Your task to perform on an android device: Do I have any events today? Image 0: 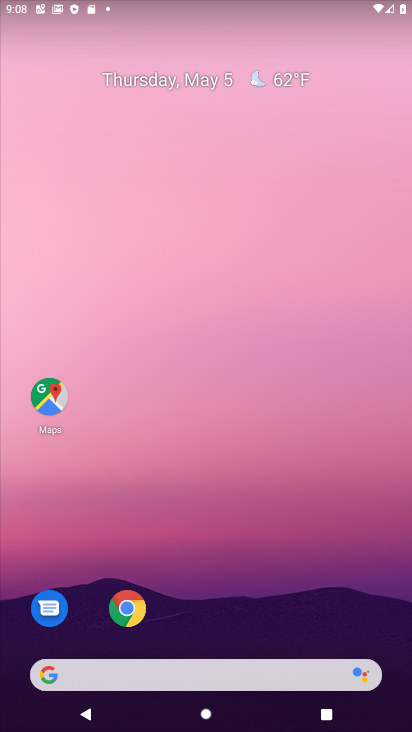
Step 0: drag from (304, 609) to (255, 21)
Your task to perform on an android device: Do I have any events today? Image 1: 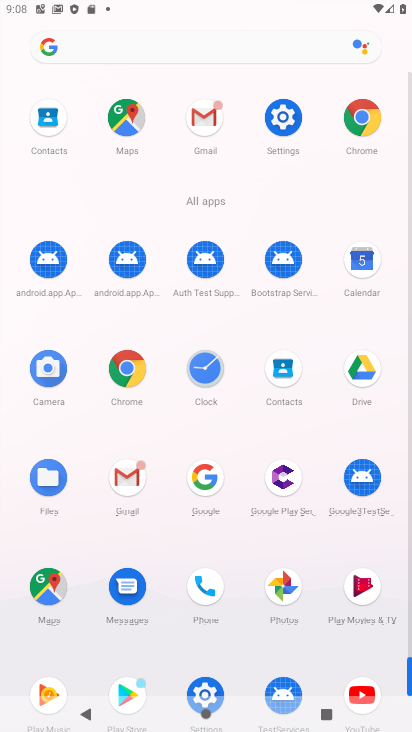
Step 1: drag from (9, 578) to (2, 204)
Your task to perform on an android device: Do I have any events today? Image 2: 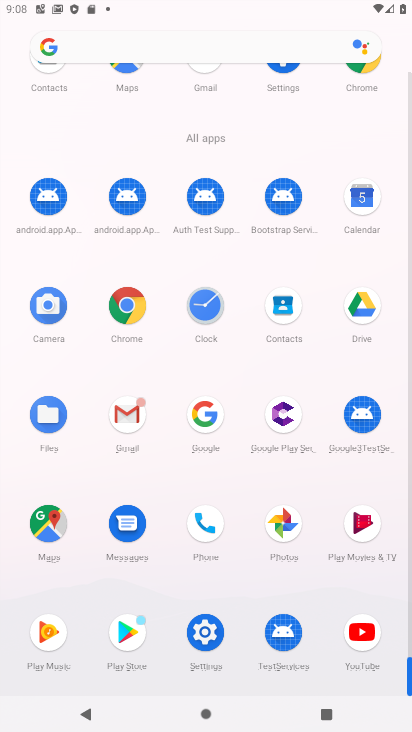
Step 2: drag from (5, 125) to (18, 376)
Your task to perform on an android device: Do I have any events today? Image 3: 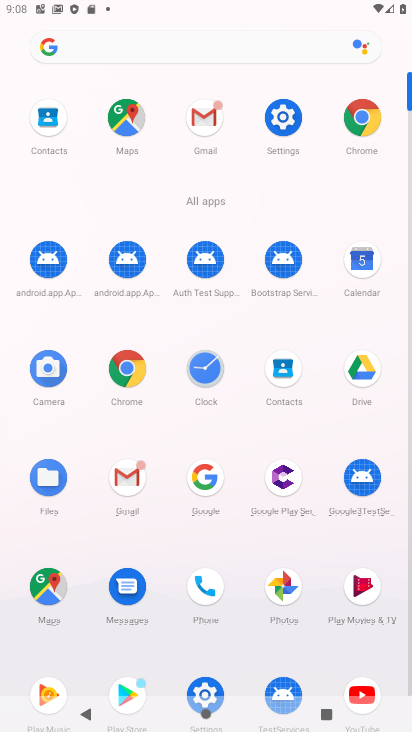
Step 3: click (364, 254)
Your task to perform on an android device: Do I have any events today? Image 4: 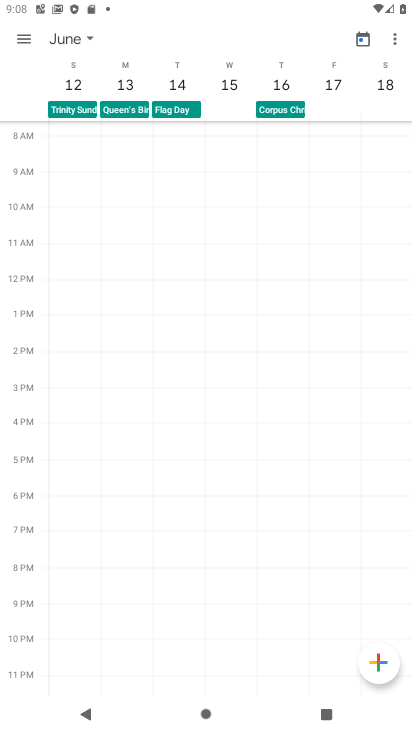
Step 4: click (26, 45)
Your task to perform on an android device: Do I have any events today? Image 5: 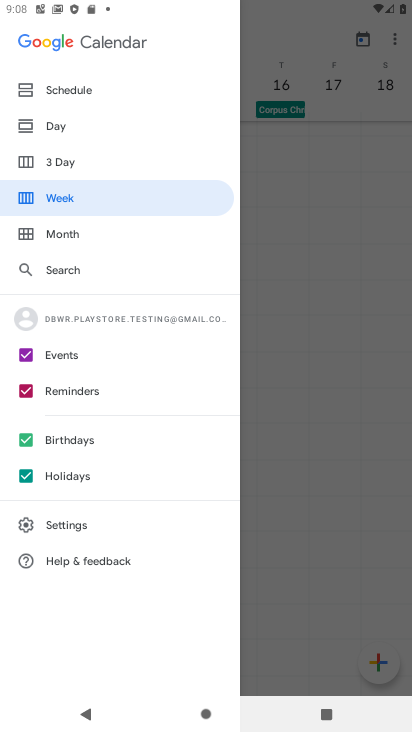
Step 5: click (301, 299)
Your task to perform on an android device: Do I have any events today? Image 6: 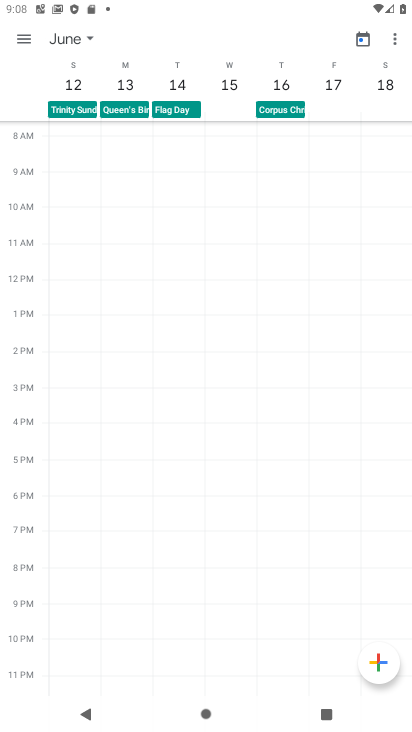
Step 6: click (365, 38)
Your task to perform on an android device: Do I have any events today? Image 7: 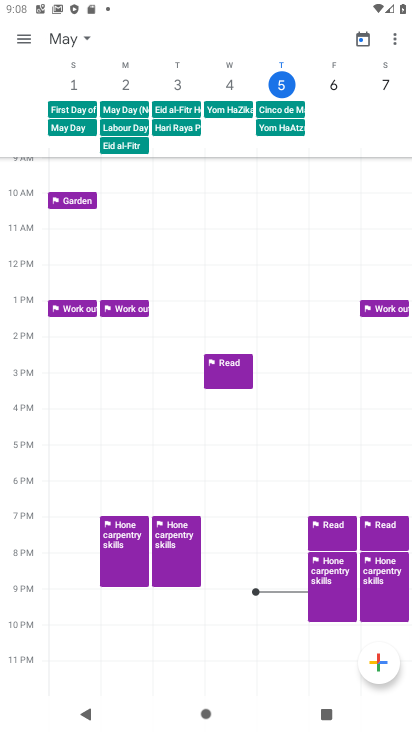
Step 7: task complete